Your task to perform on an android device: show emergency info Image 0: 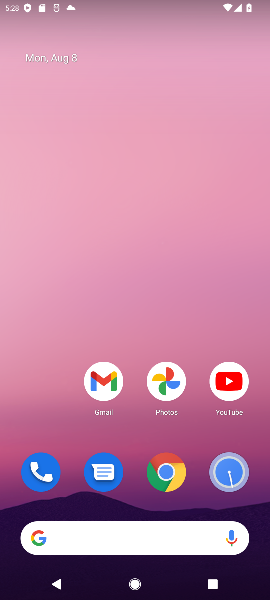
Step 0: press home button
Your task to perform on an android device: show emergency info Image 1: 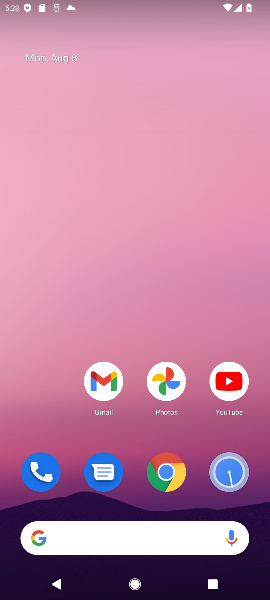
Step 1: drag from (137, 513) to (127, 178)
Your task to perform on an android device: show emergency info Image 2: 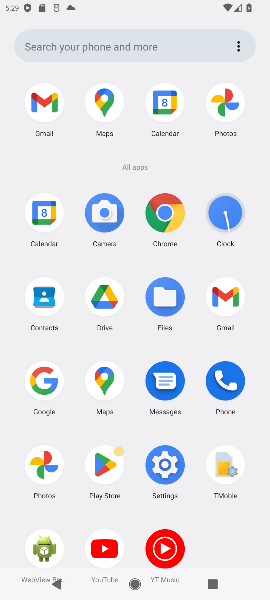
Step 2: click (173, 476)
Your task to perform on an android device: show emergency info Image 3: 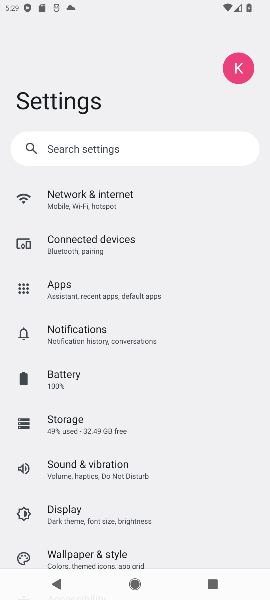
Step 3: drag from (182, 544) to (163, 22)
Your task to perform on an android device: show emergency info Image 4: 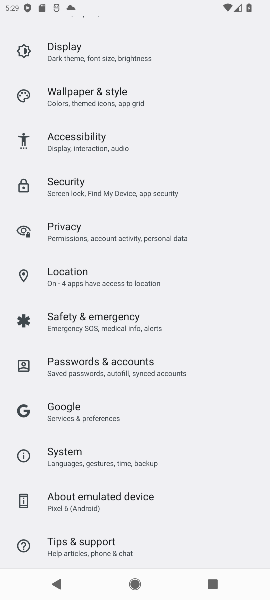
Step 4: drag from (194, 417) to (179, 275)
Your task to perform on an android device: show emergency info Image 5: 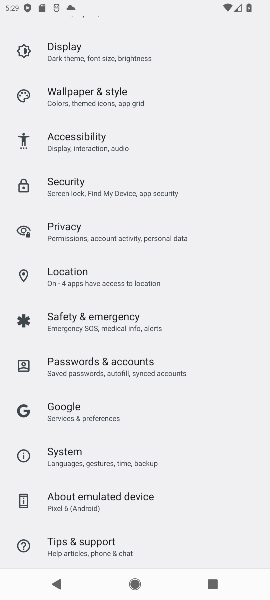
Step 5: click (118, 506)
Your task to perform on an android device: show emergency info Image 6: 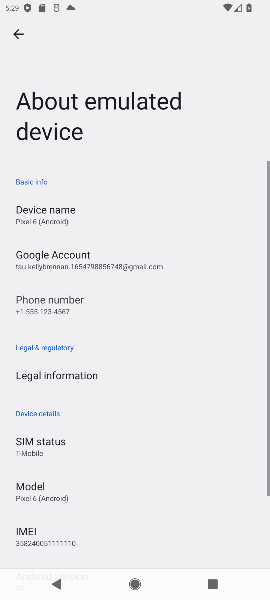
Step 6: drag from (141, 469) to (109, 100)
Your task to perform on an android device: show emergency info Image 7: 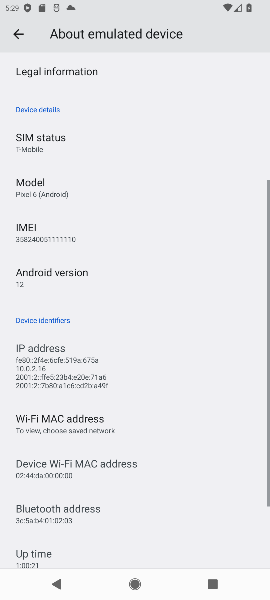
Step 7: drag from (201, 461) to (185, 153)
Your task to perform on an android device: show emergency info Image 8: 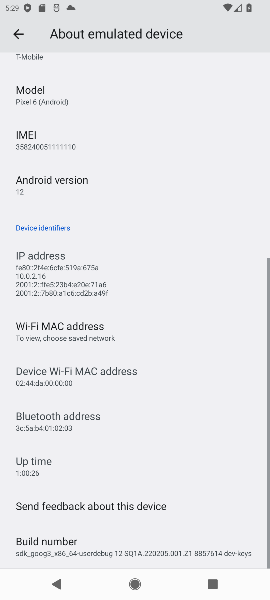
Step 8: drag from (220, 443) to (176, 89)
Your task to perform on an android device: show emergency info Image 9: 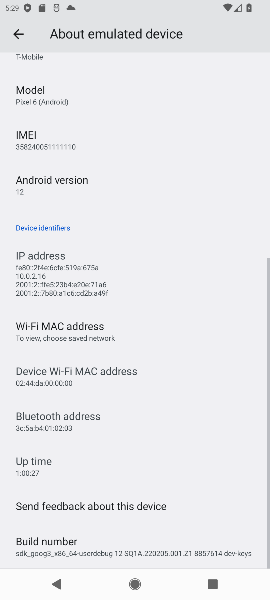
Step 9: drag from (183, 104) to (220, 365)
Your task to perform on an android device: show emergency info Image 10: 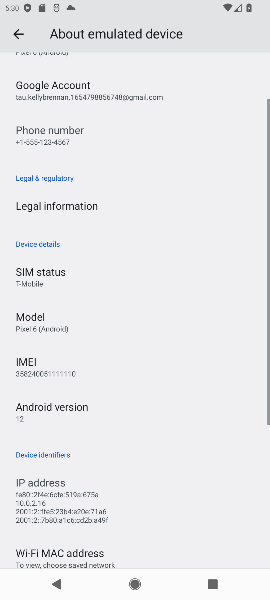
Step 10: drag from (210, 214) to (195, 433)
Your task to perform on an android device: show emergency info Image 11: 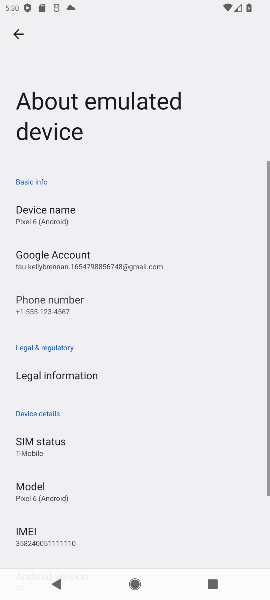
Step 11: click (40, 375)
Your task to perform on an android device: show emergency info Image 12: 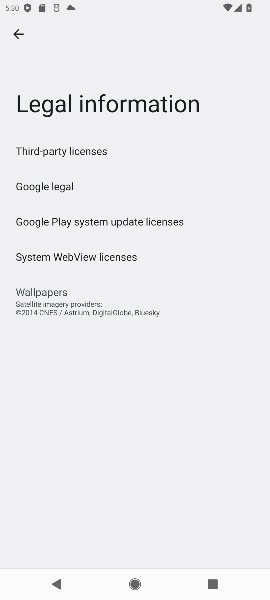
Step 12: task complete